Your task to perform on an android device: toggle translation in the chrome app Image 0: 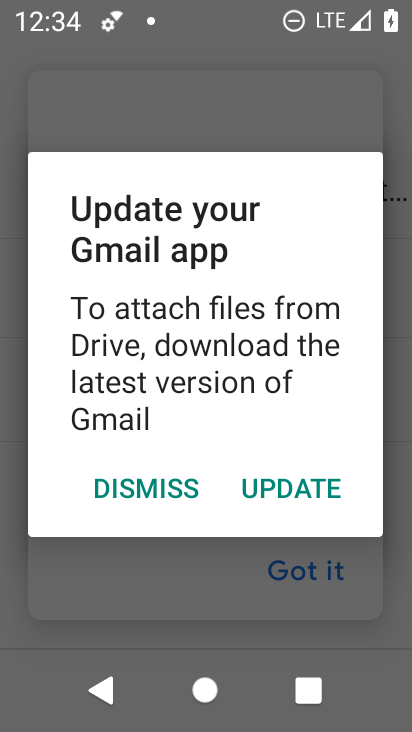
Step 0: press home button
Your task to perform on an android device: toggle translation in the chrome app Image 1: 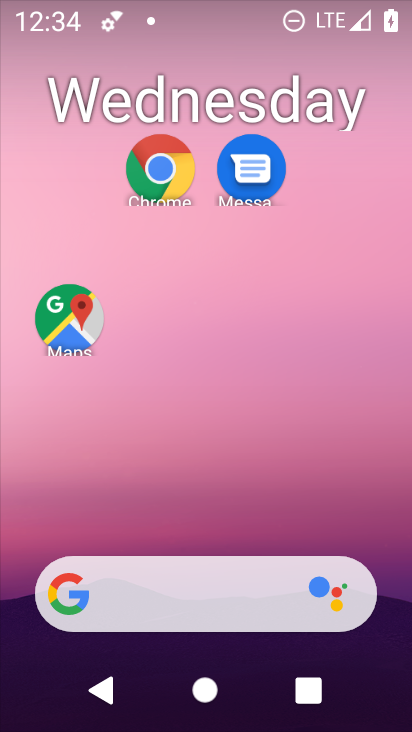
Step 1: click (154, 174)
Your task to perform on an android device: toggle translation in the chrome app Image 2: 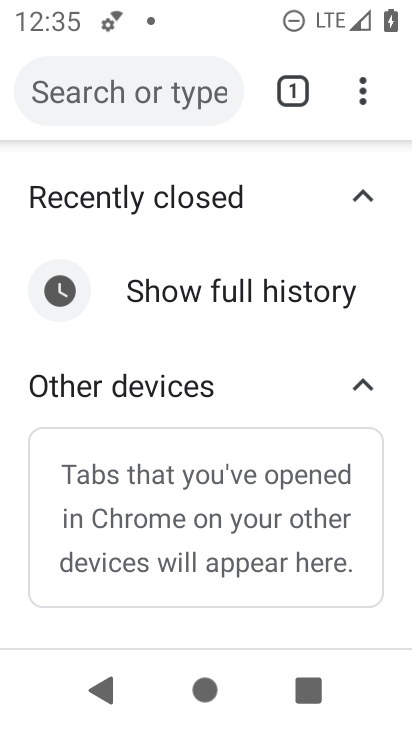
Step 2: click (360, 100)
Your task to perform on an android device: toggle translation in the chrome app Image 3: 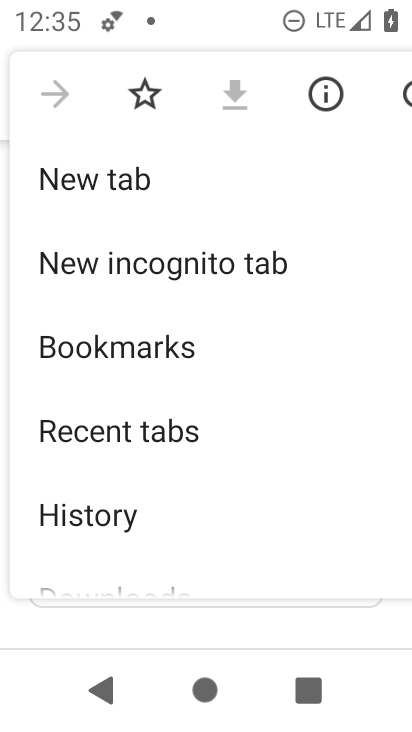
Step 3: click (360, 82)
Your task to perform on an android device: toggle translation in the chrome app Image 4: 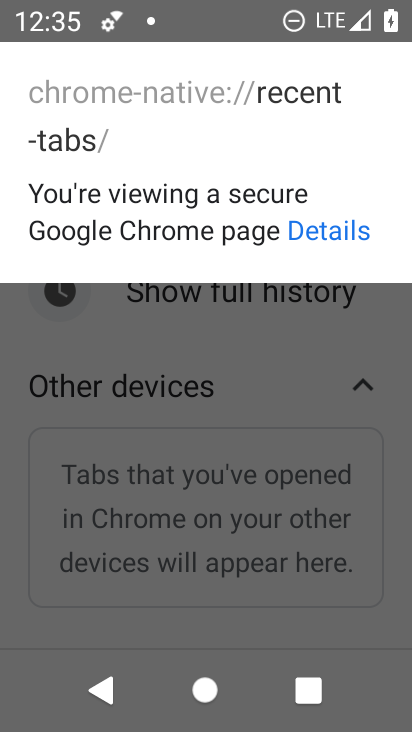
Step 4: click (231, 422)
Your task to perform on an android device: toggle translation in the chrome app Image 5: 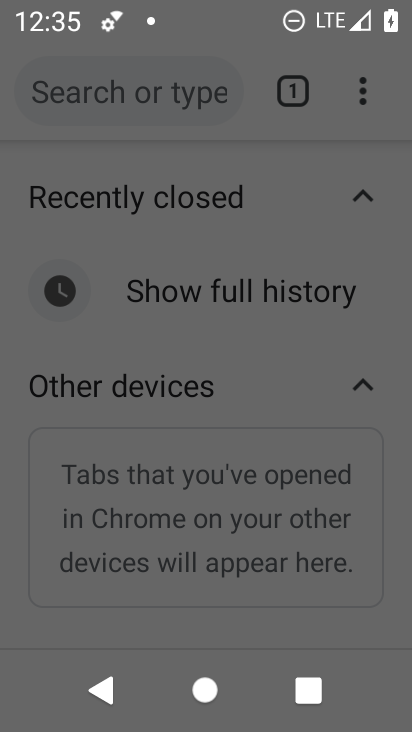
Step 5: click (247, 434)
Your task to perform on an android device: toggle translation in the chrome app Image 6: 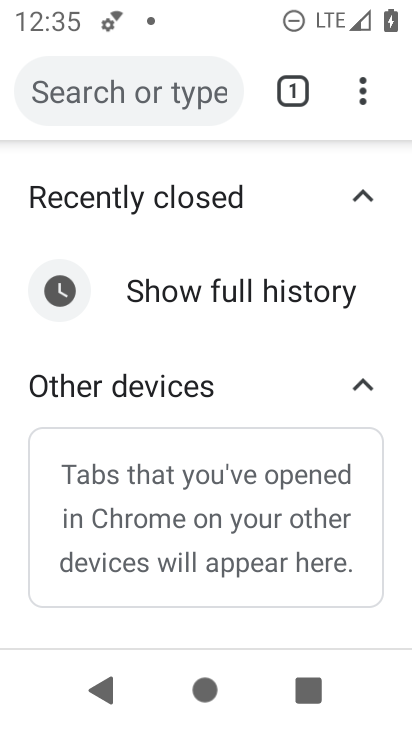
Step 6: click (366, 91)
Your task to perform on an android device: toggle translation in the chrome app Image 7: 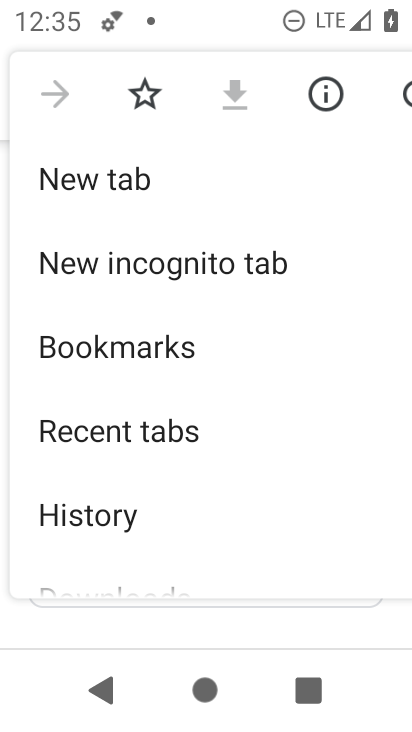
Step 7: drag from (180, 479) to (162, 140)
Your task to perform on an android device: toggle translation in the chrome app Image 8: 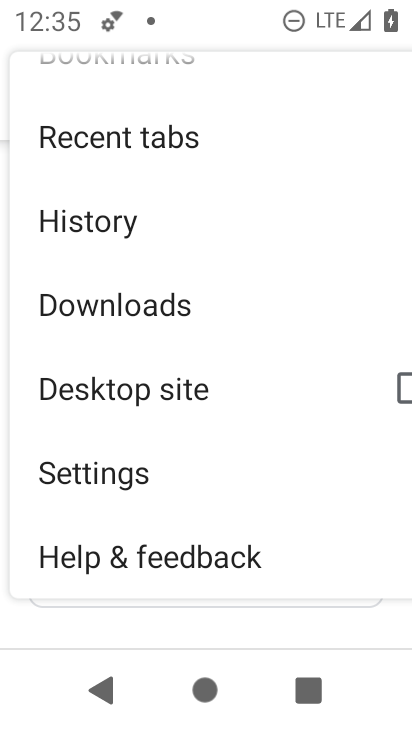
Step 8: click (112, 476)
Your task to perform on an android device: toggle translation in the chrome app Image 9: 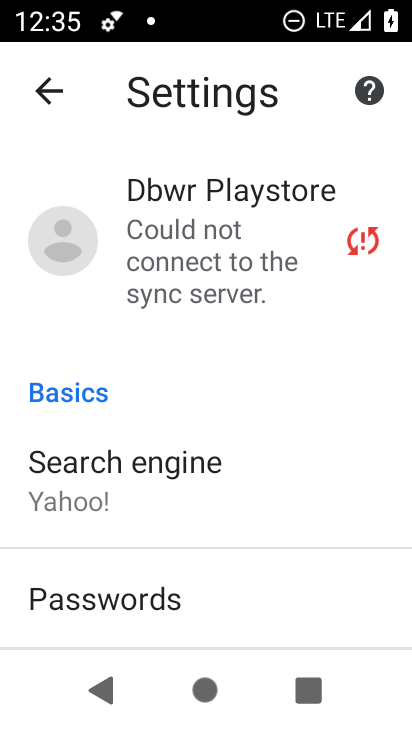
Step 9: drag from (161, 581) to (160, 142)
Your task to perform on an android device: toggle translation in the chrome app Image 10: 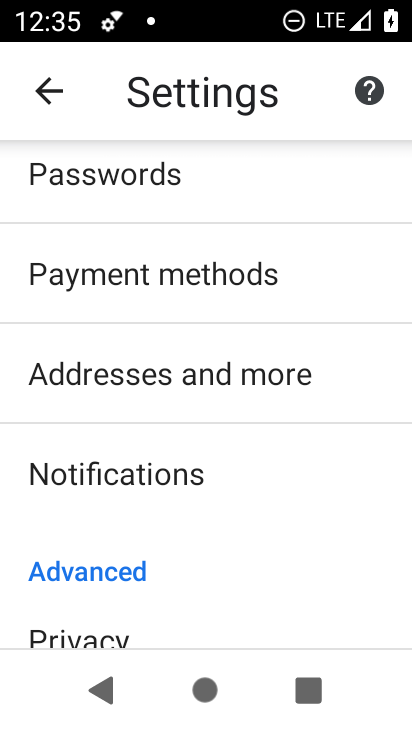
Step 10: drag from (172, 572) to (166, 240)
Your task to perform on an android device: toggle translation in the chrome app Image 11: 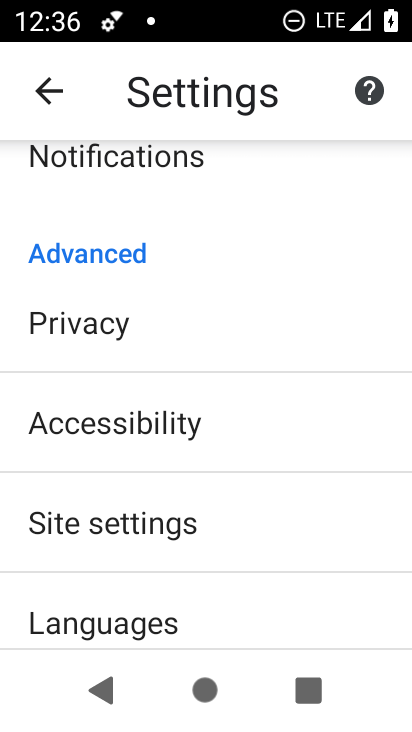
Step 11: click (166, 629)
Your task to perform on an android device: toggle translation in the chrome app Image 12: 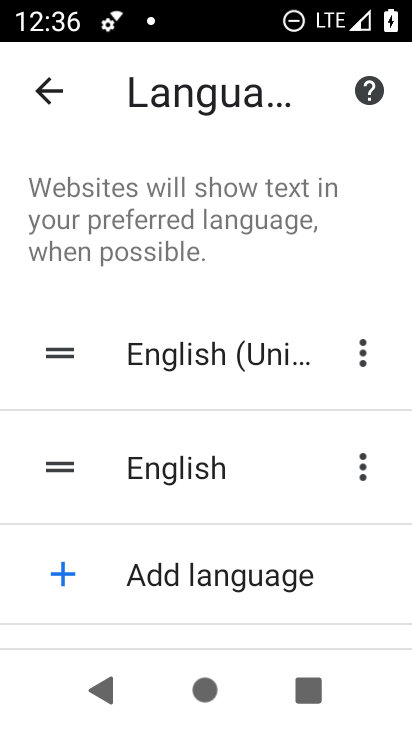
Step 12: drag from (208, 579) to (208, 124)
Your task to perform on an android device: toggle translation in the chrome app Image 13: 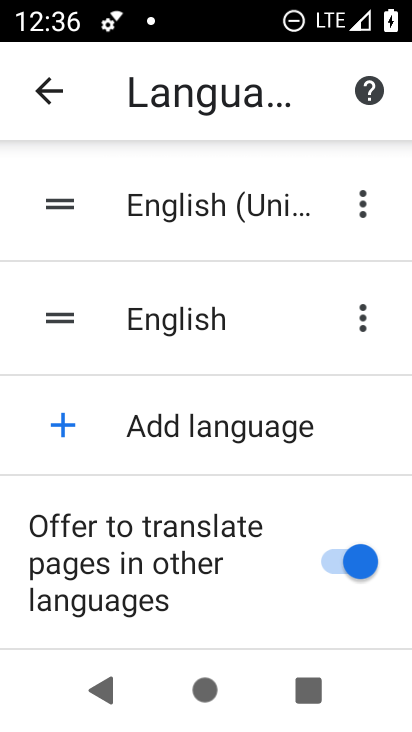
Step 13: click (335, 557)
Your task to perform on an android device: toggle translation in the chrome app Image 14: 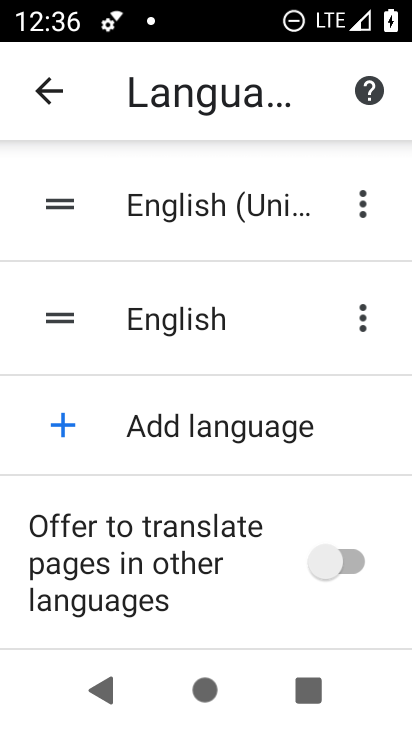
Step 14: task complete